Your task to perform on an android device: open a new tab in the chrome app Image 0: 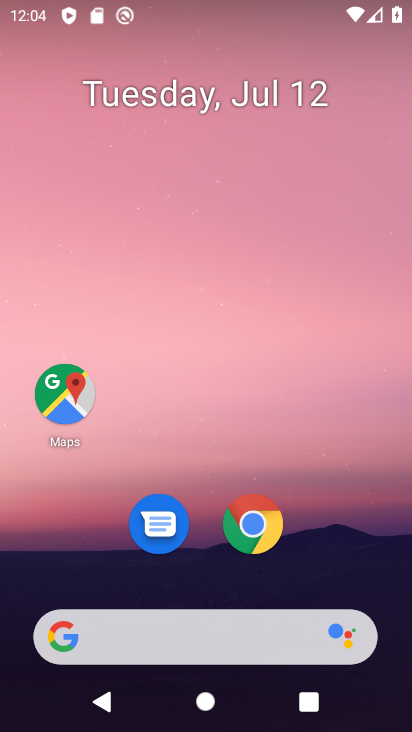
Step 0: click (266, 521)
Your task to perform on an android device: open a new tab in the chrome app Image 1: 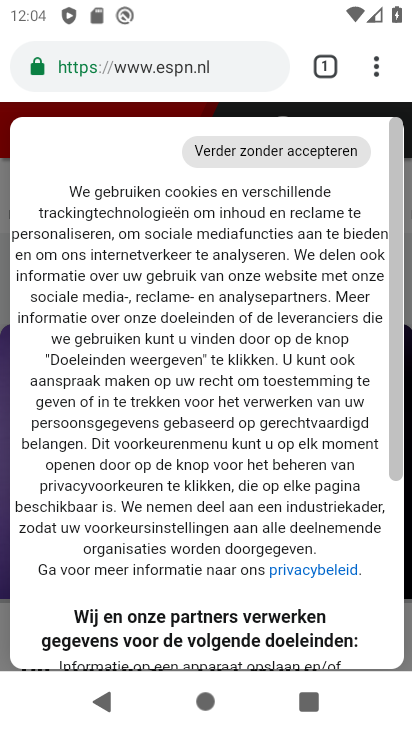
Step 1: click (379, 60)
Your task to perform on an android device: open a new tab in the chrome app Image 2: 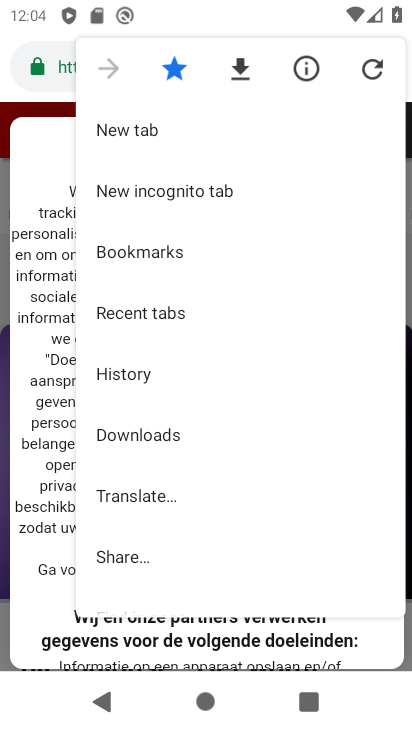
Step 2: click (228, 131)
Your task to perform on an android device: open a new tab in the chrome app Image 3: 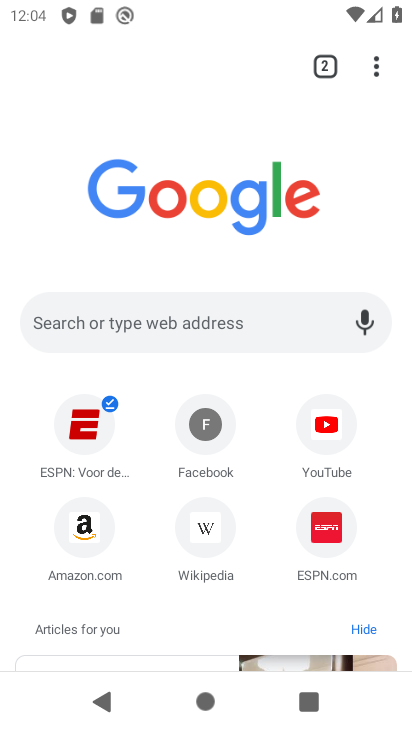
Step 3: task complete